Your task to perform on an android device: Search for the best Nike running shoes on Nike.com Image 0: 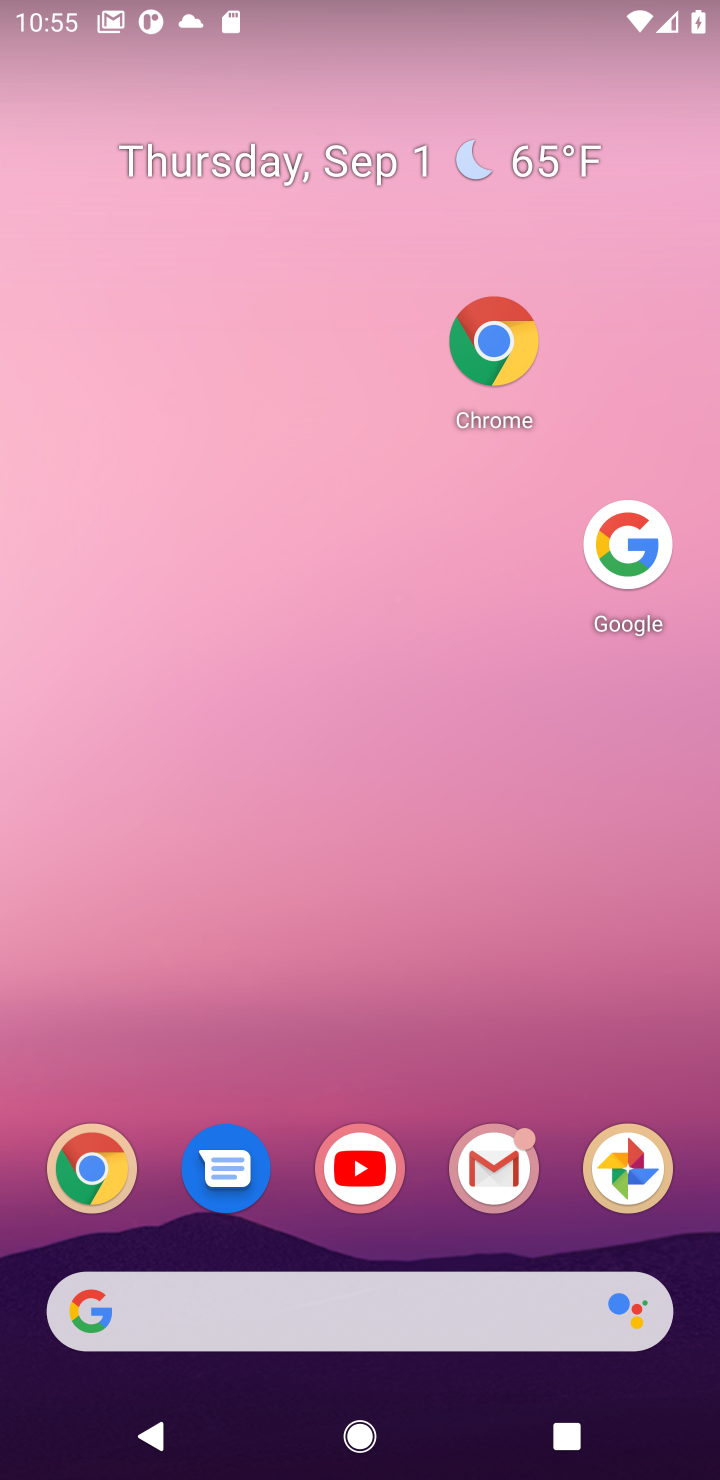
Step 0: click (328, 440)
Your task to perform on an android device: Search for the best Nike running shoes on Nike.com Image 1: 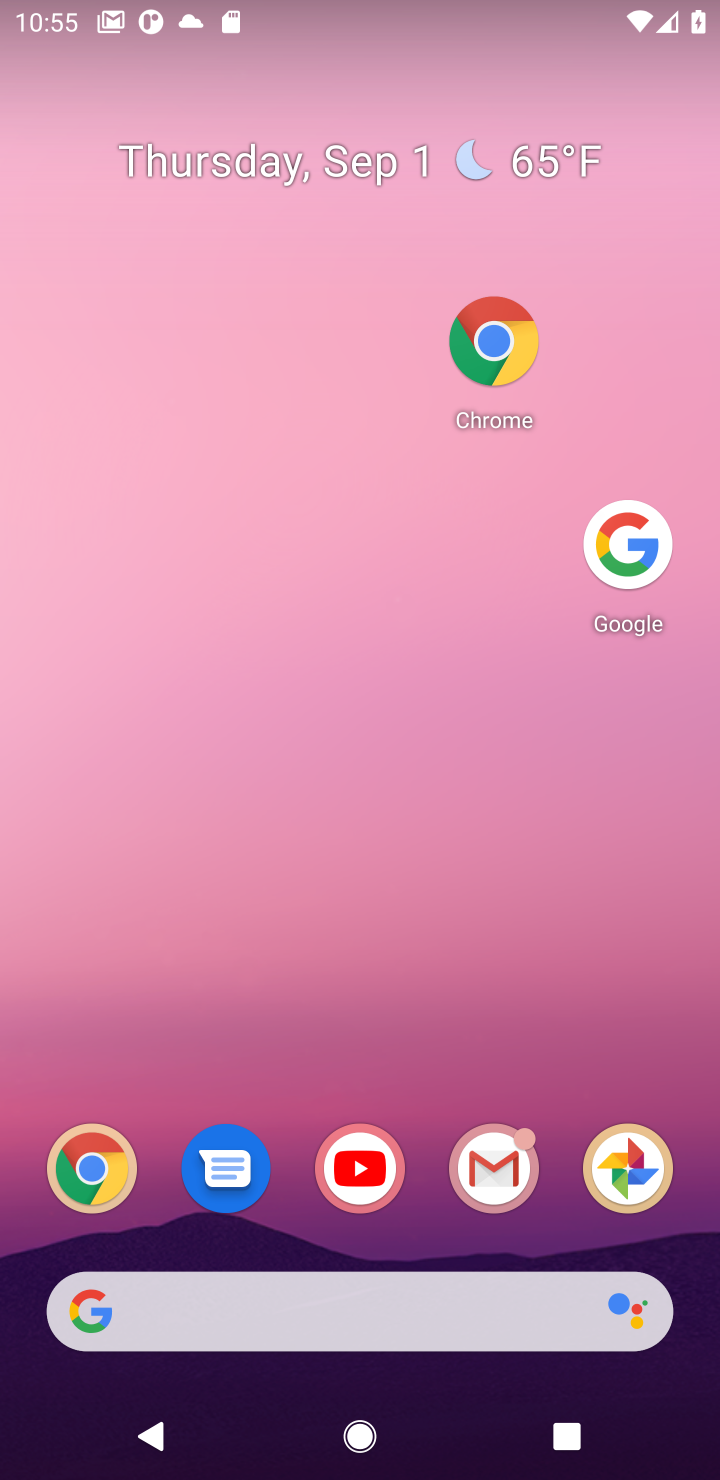
Step 1: click (340, 534)
Your task to perform on an android device: Search for the best Nike running shoes on Nike.com Image 2: 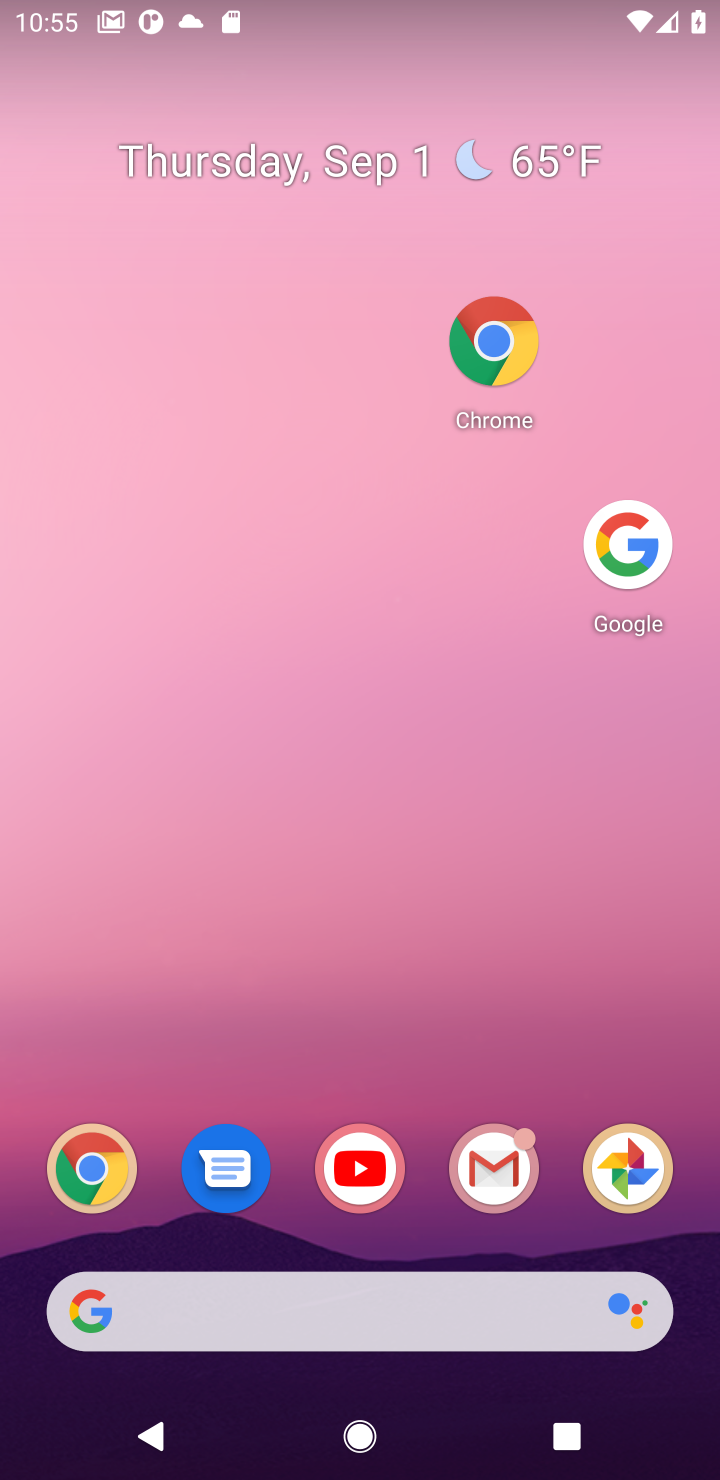
Step 2: drag from (309, 1258) to (211, 540)
Your task to perform on an android device: Search for the best Nike running shoes on Nike.com Image 3: 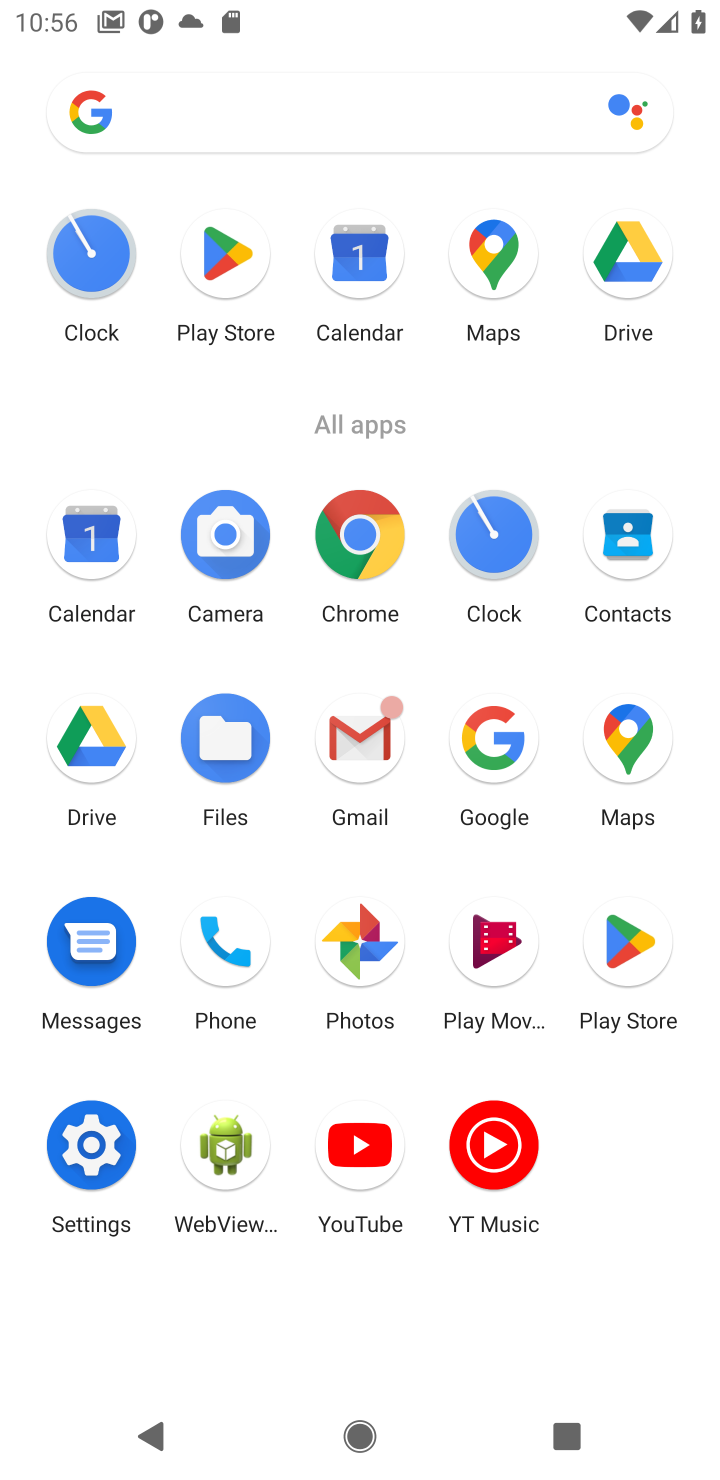
Step 3: click (510, 729)
Your task to perform on an android device: Search for the best Nike running shoes on Nike.com Image 4: 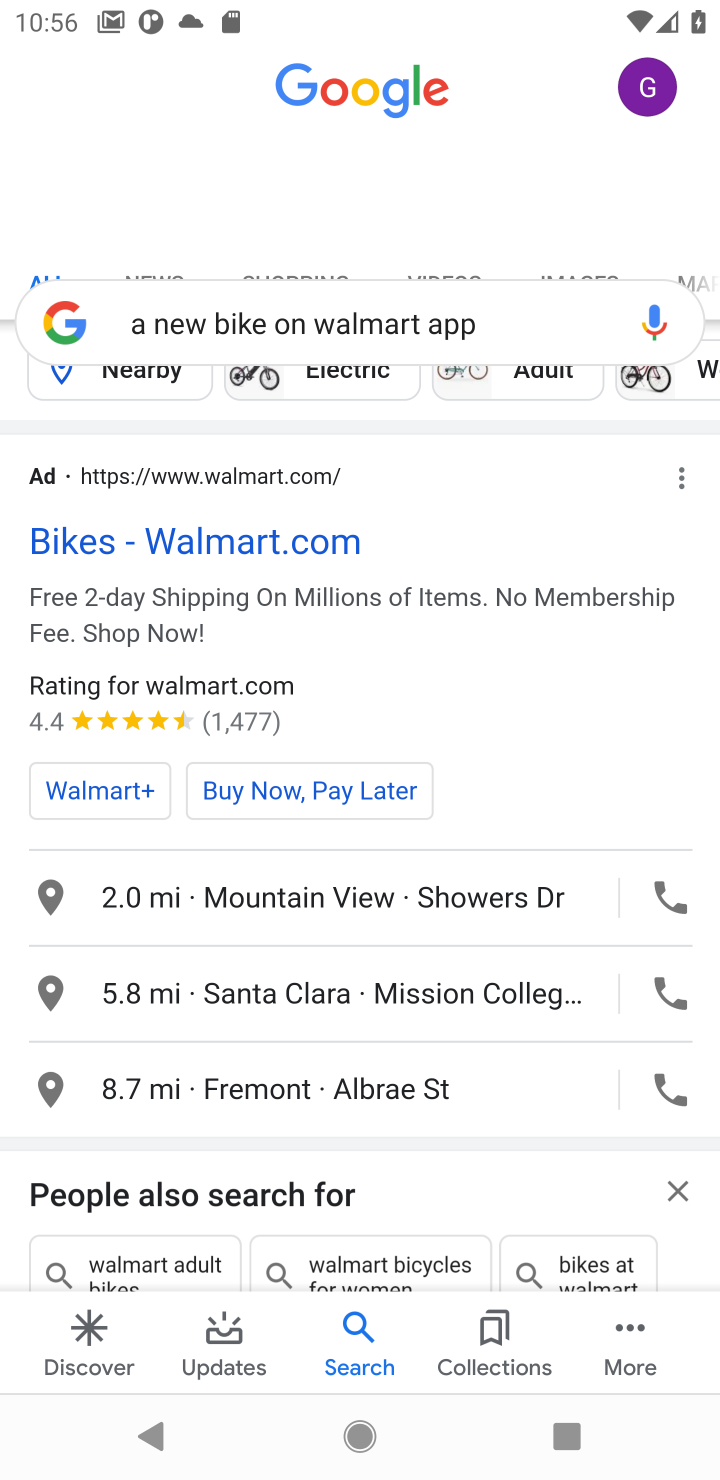
Step 4: click (518, 300)
Your task to perform on an android device: Search for the best Nike running shoes on Nike.com Image 5: 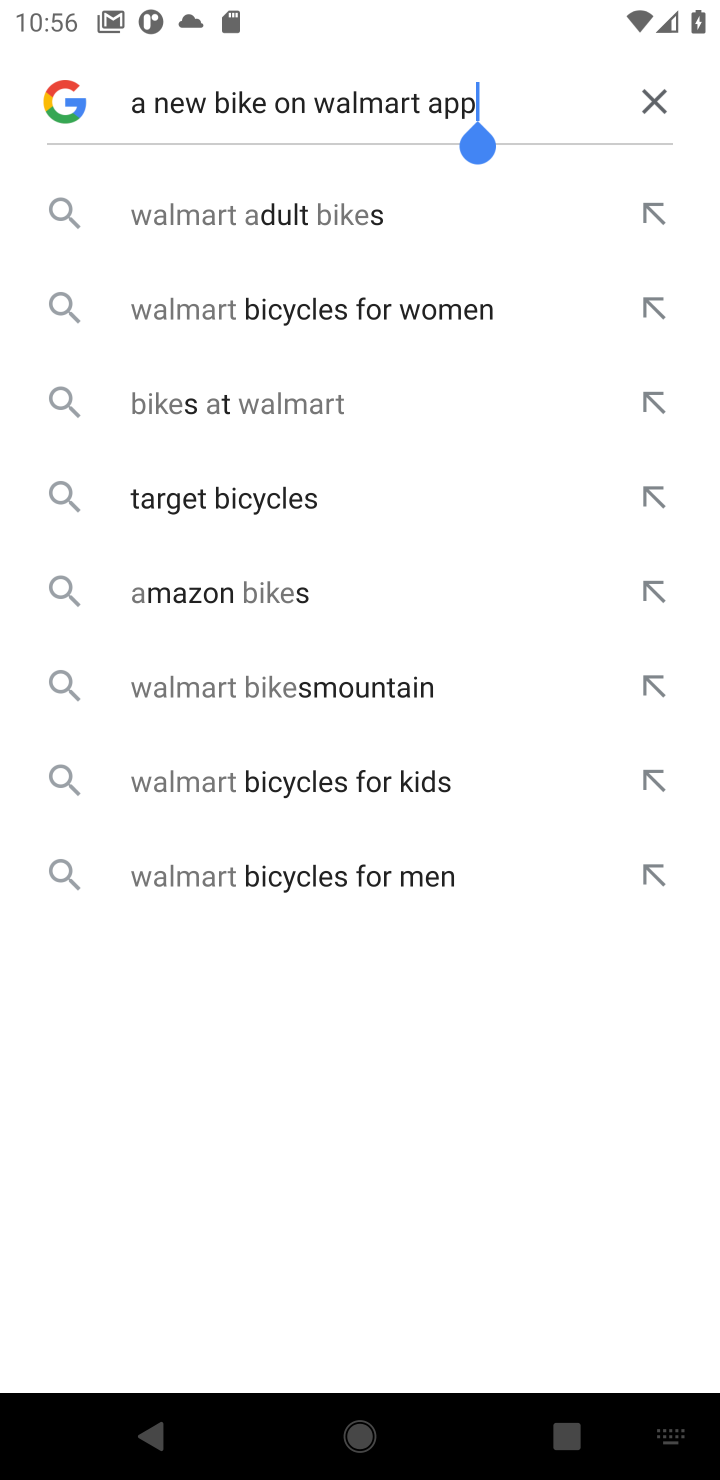
Step 5: click (688, 82)
Your task to perform on an android device: Search for the best Nike running shoes on Nike.com Image 6: 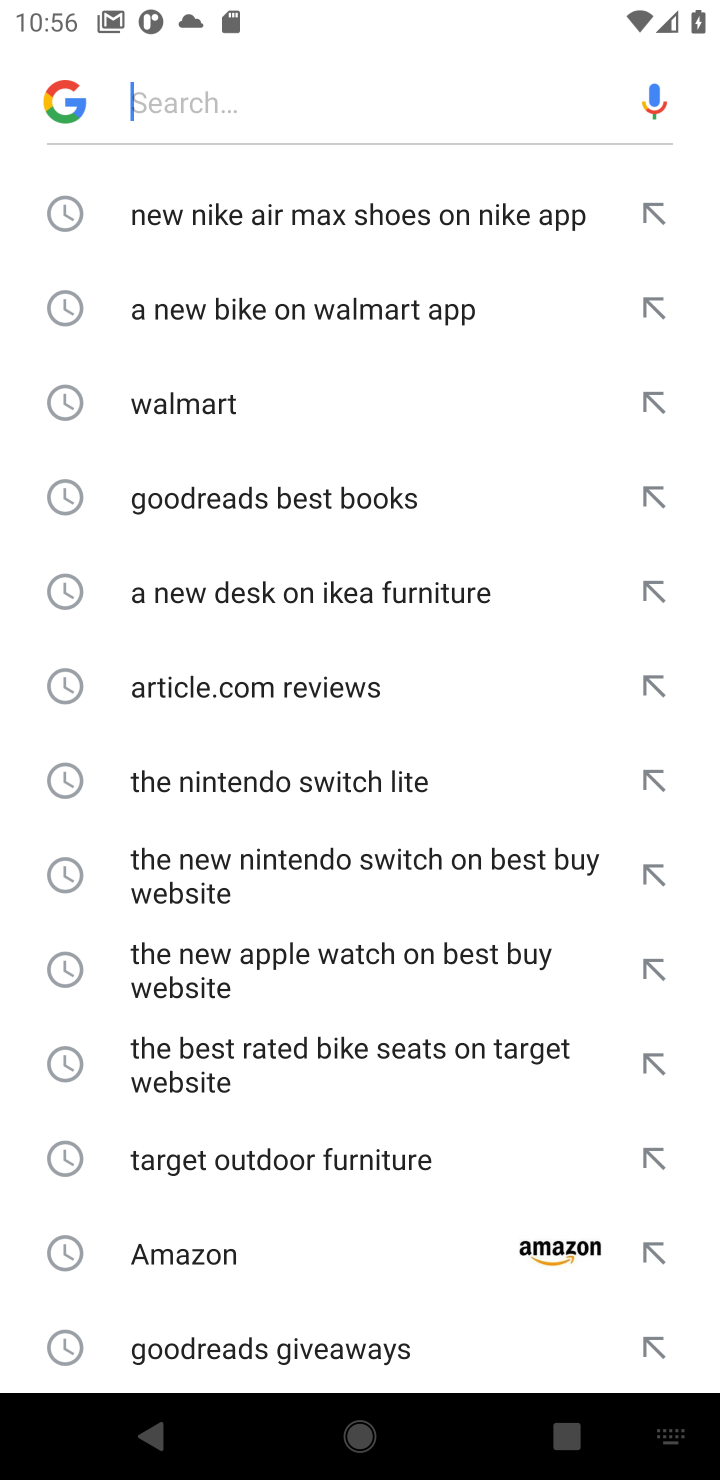
Step 6: click (333, 80)
Your task to perform on an android device: Search for the best Nike running shoes on Nike.com Image 7: 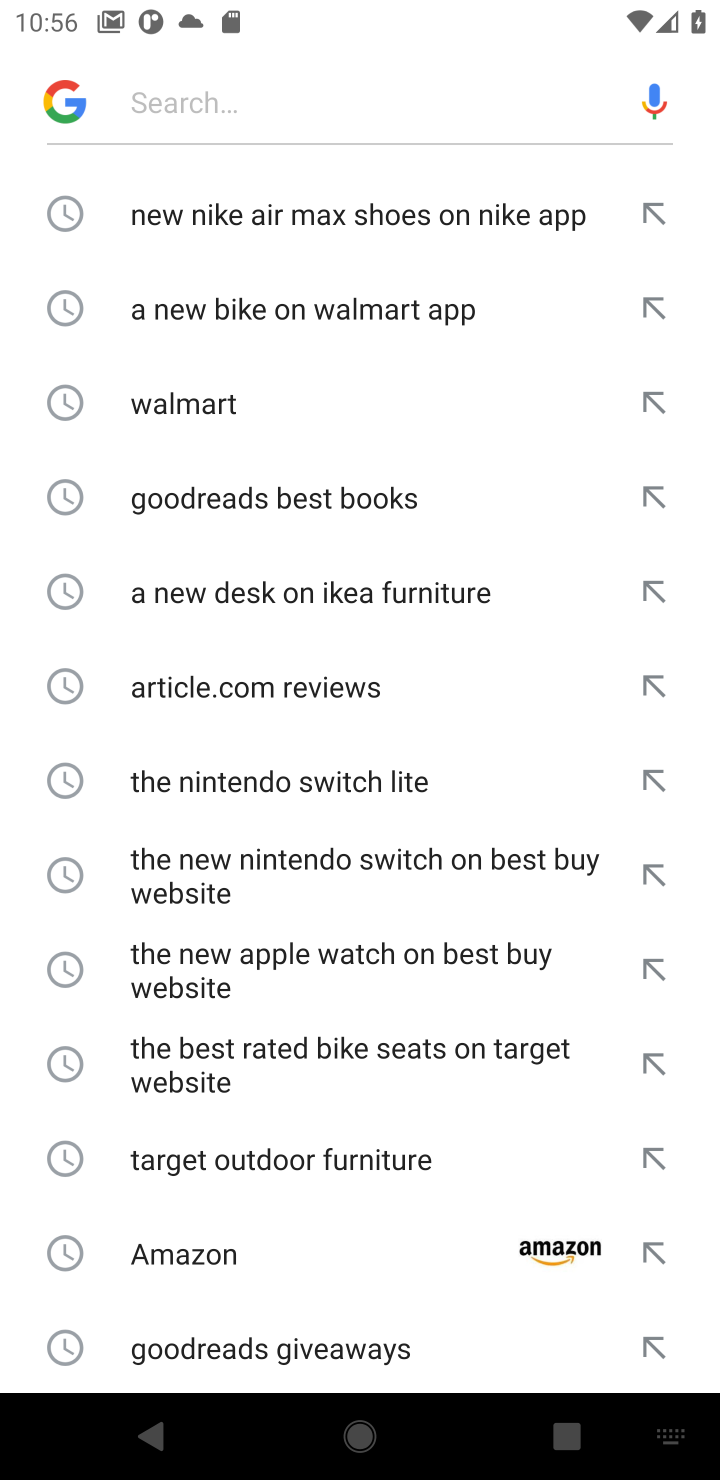
Step 7: type "the best Nike running shoes on Nike.com "
Your task to perform on an android device: Search for the best Nike running shoes on Nike.com Image 8: 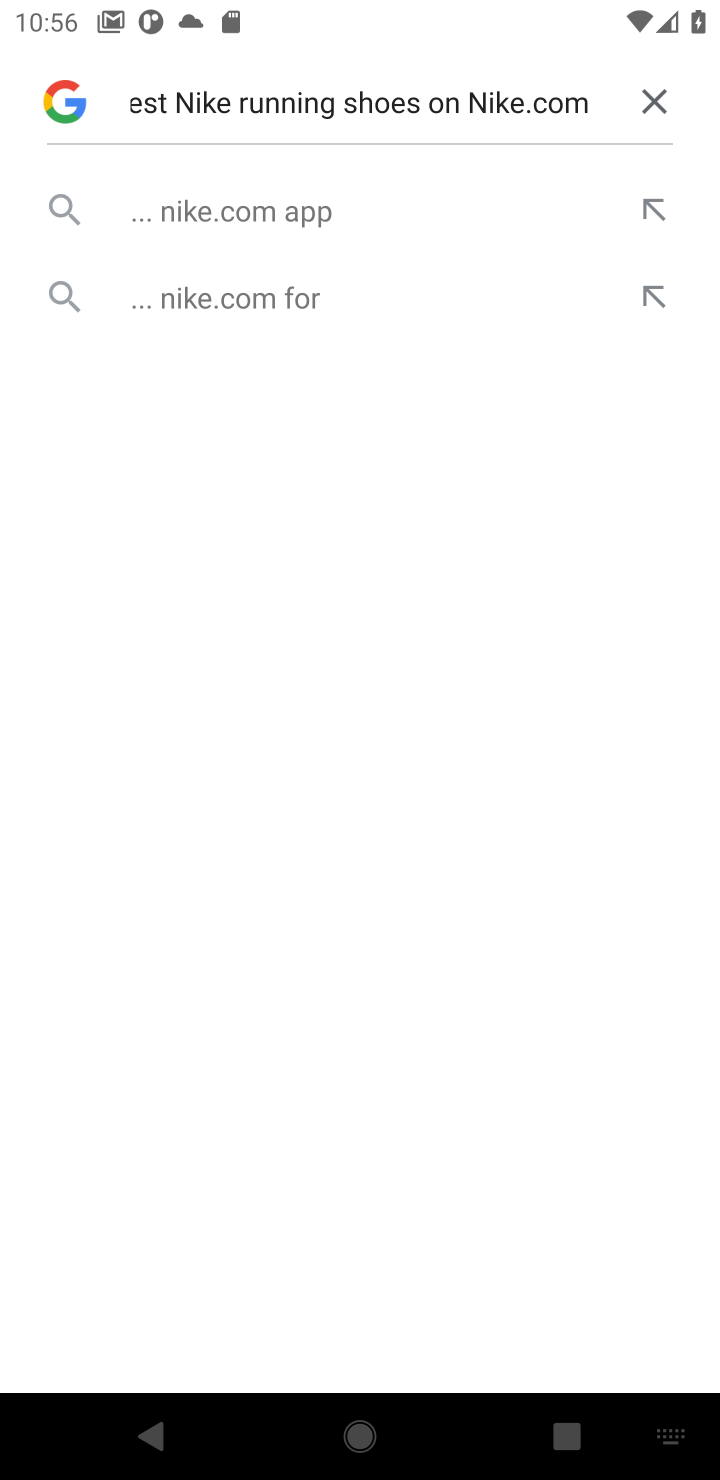
Step 8: click (271, 209)
Your task to perform on an android device: Search for the best Nike running shoes on Nike.com Image 9: 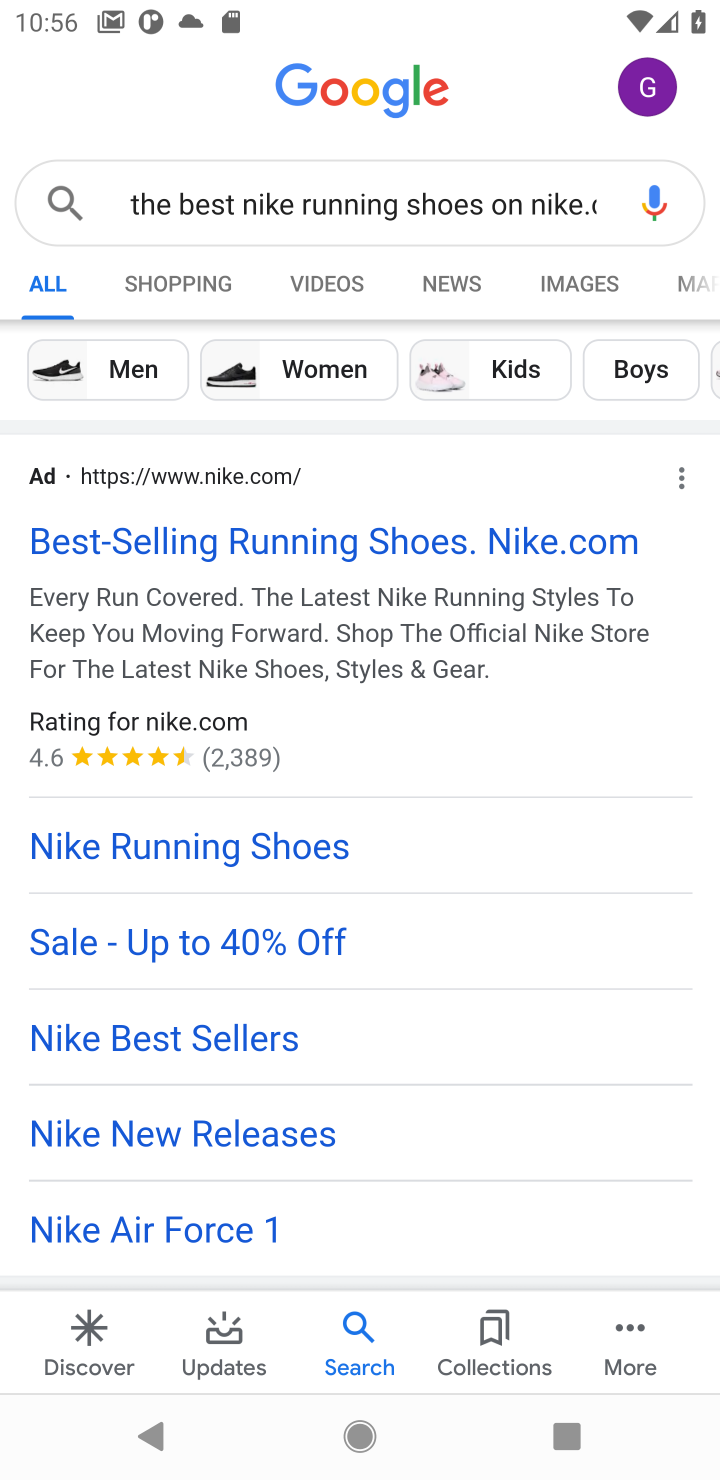
Step 9: click (301, 553)
Your task to perform on an android device: Search for the best Nike running shoes on Nike.com Image 10: 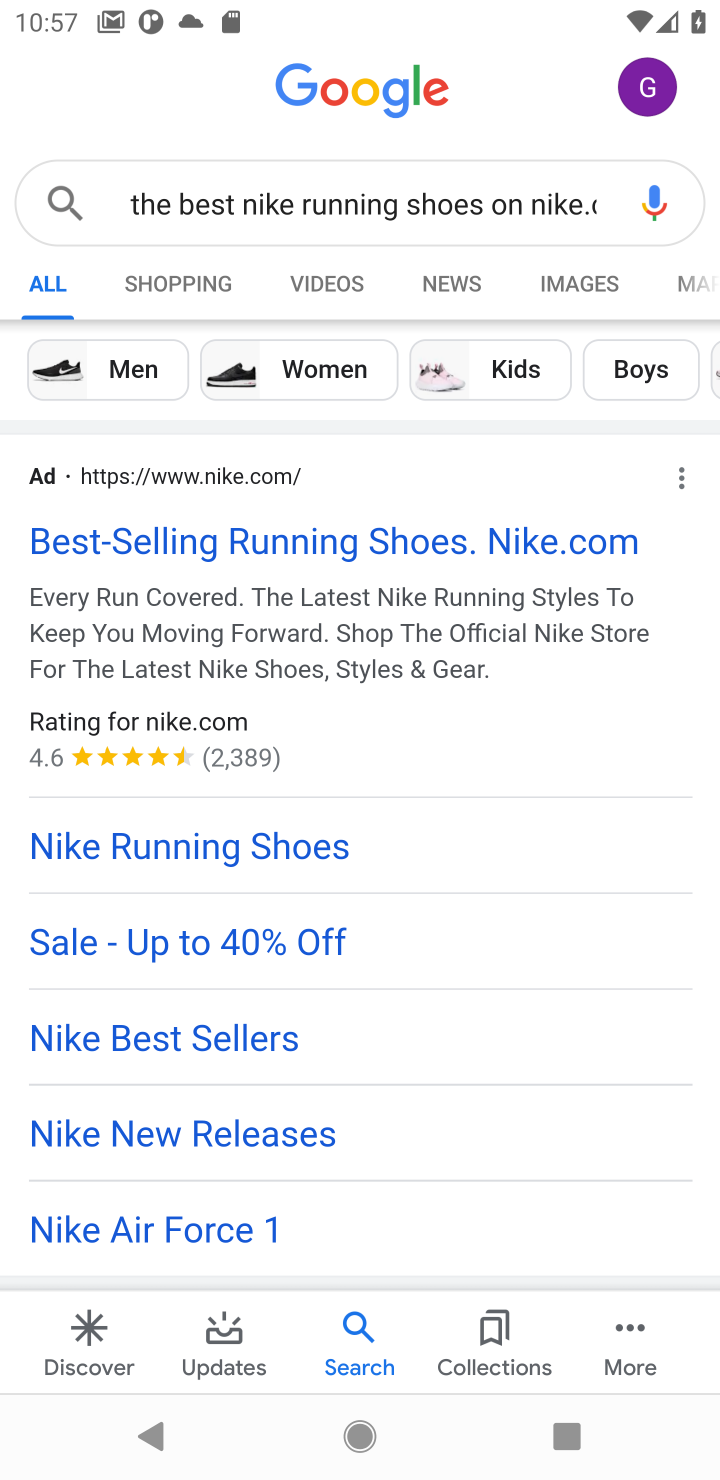
Step 10: click (283, 518)
Your task to perform on an android device: Search for the best Nike running shoes on Nike.com Image 11: 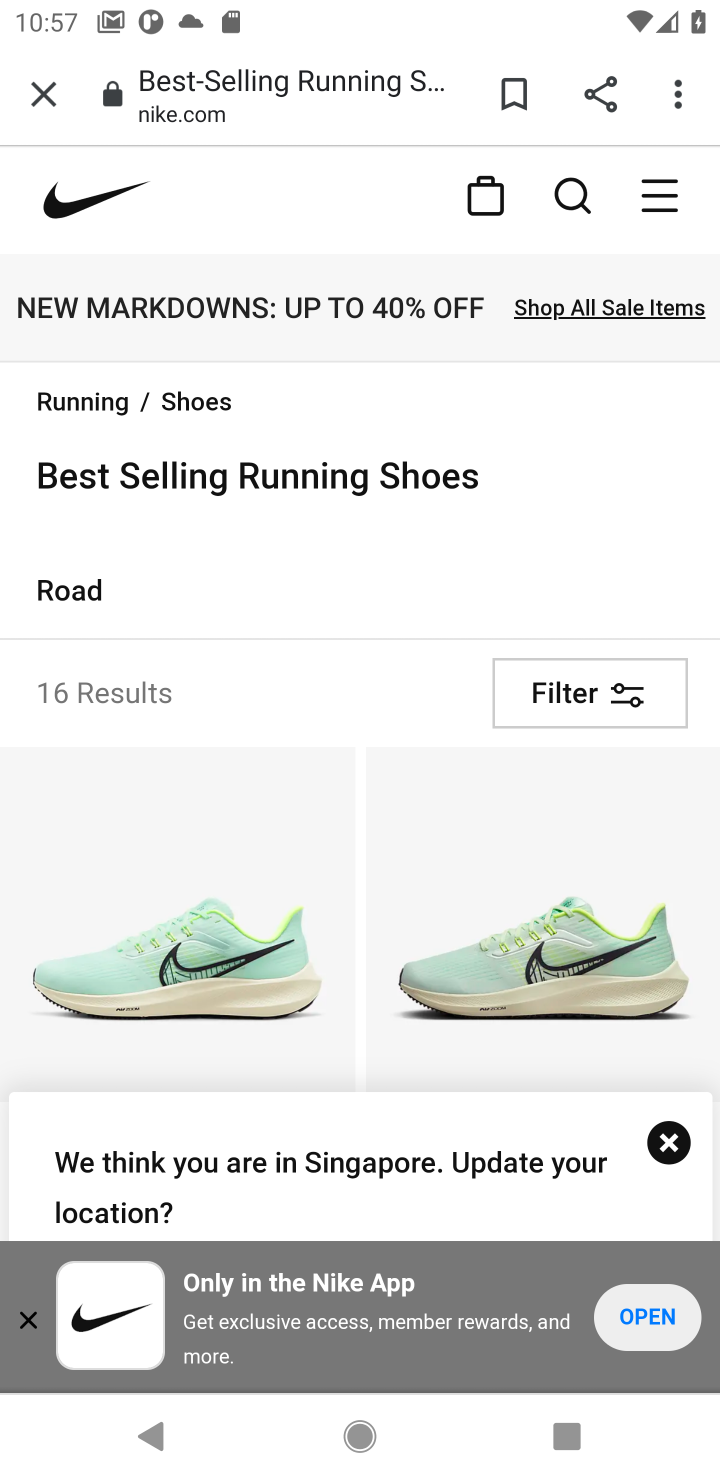
Step 11: click (26, 1334)
Your task to perform on an android device: Search for the best Nike running shoes on Nike.com Image 12: 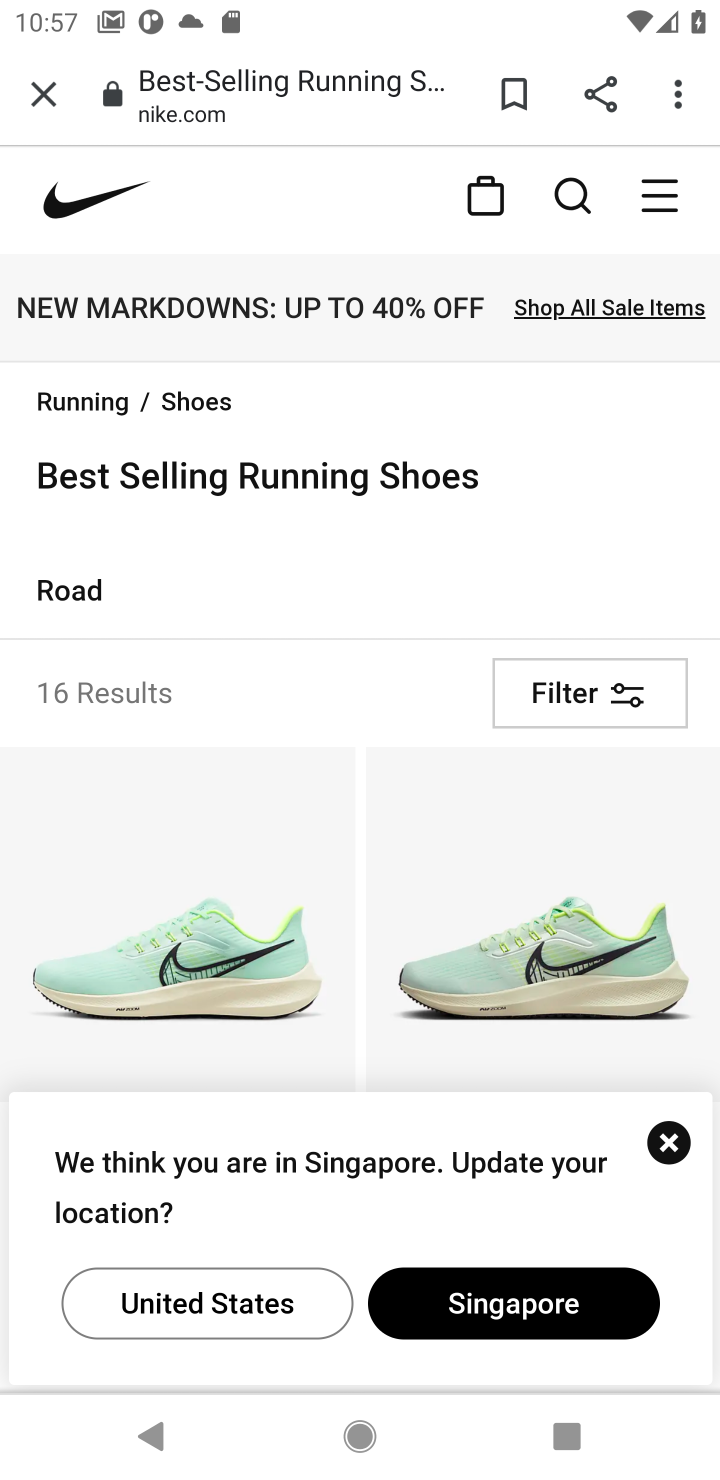
Step 12: drag from (383, 667) to (487, 263)
Your task to perform on an android device: Search for the best Nike running shoes on Nike.com Image 13: 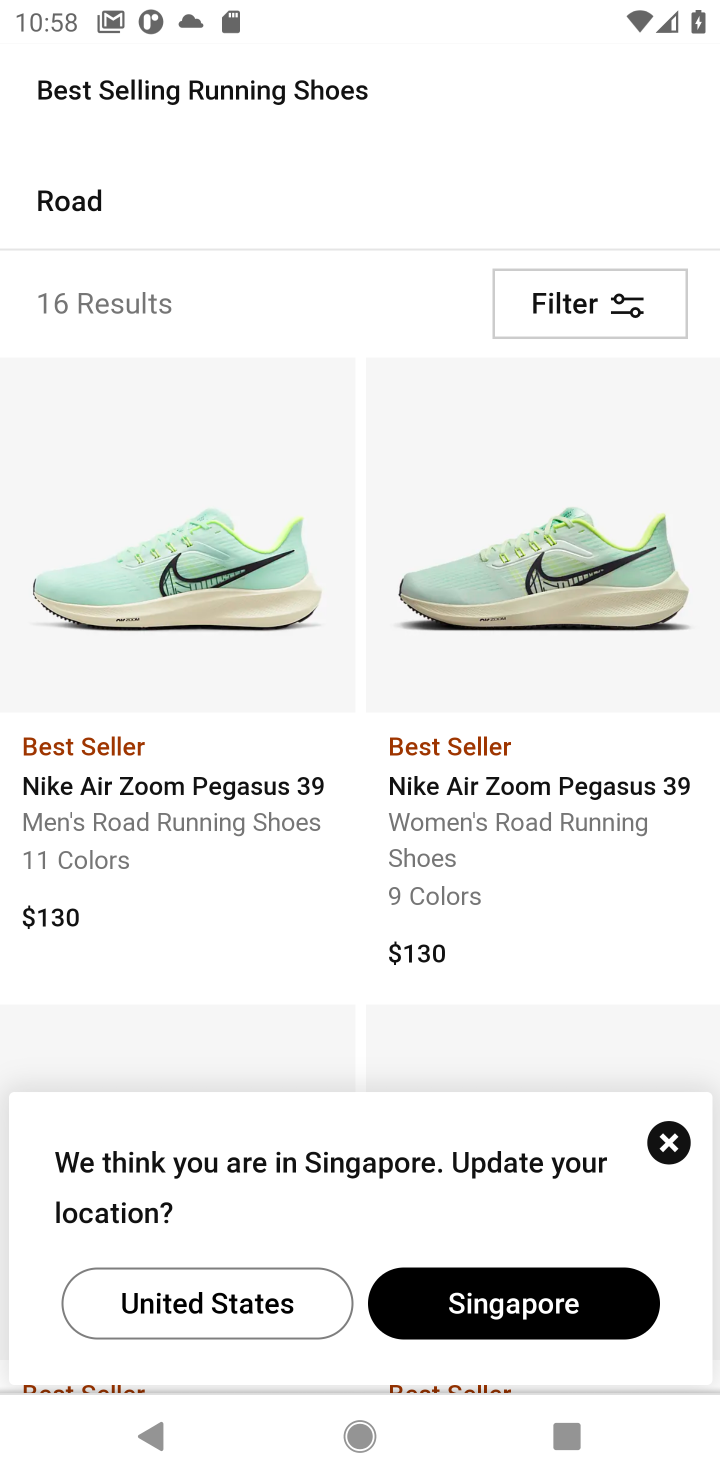
Step 13: click (663, 1127)
Your task to perform on an android device: Search for the best Nike running shoes on Nike.com Image 14: 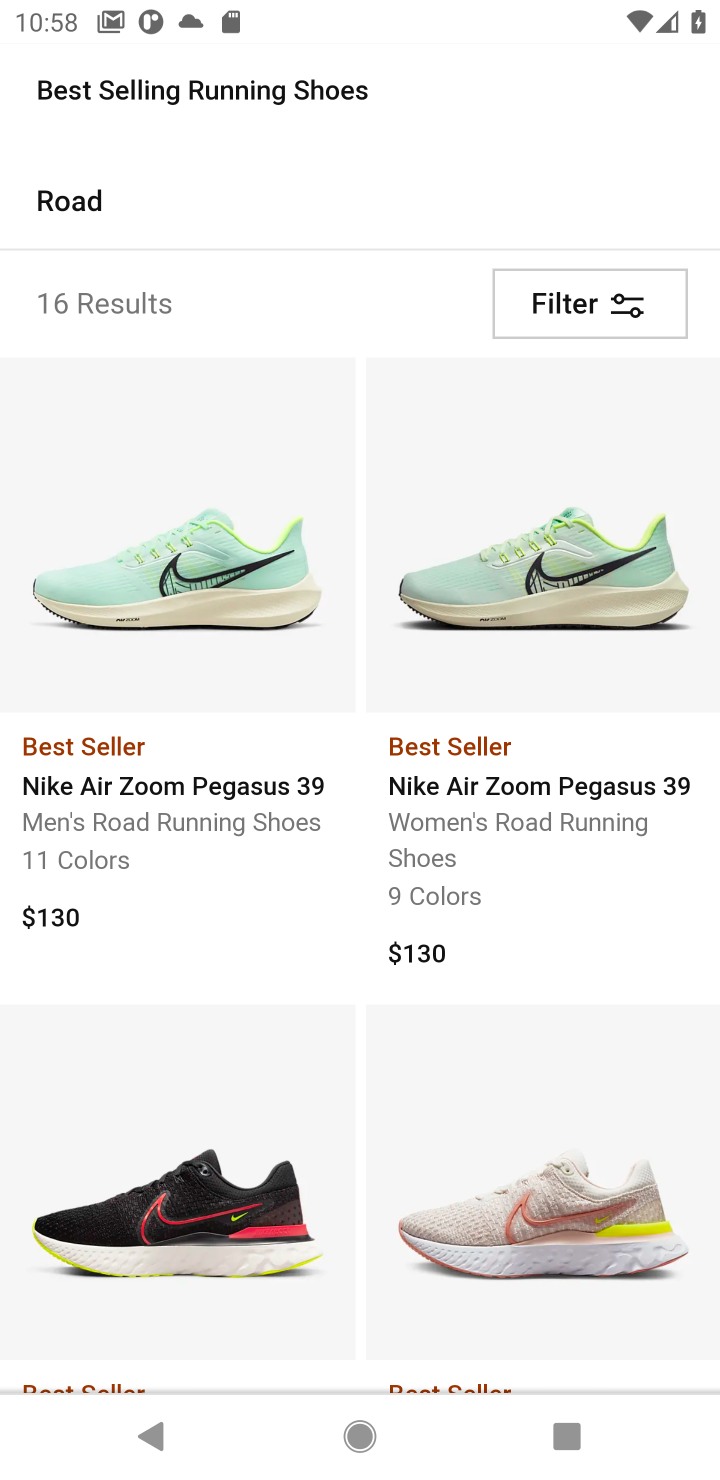
Step 14: task complete